Your task to perform on an android device: Show me popular games on the Play Store Image 0: 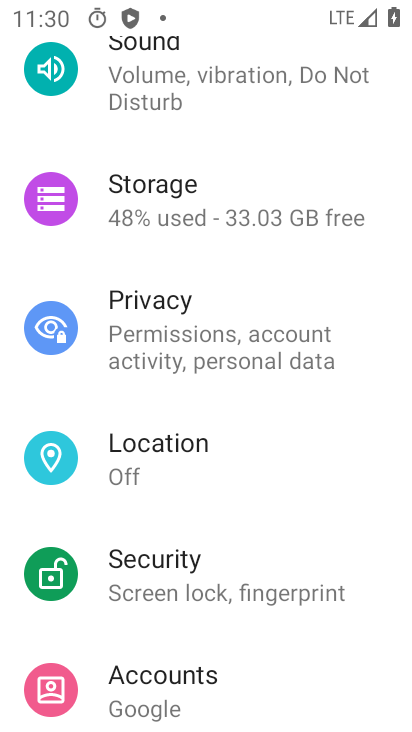
Step 0: press back button
Your task to perform on an android device: Show me popular games on the Play Store Image 1: 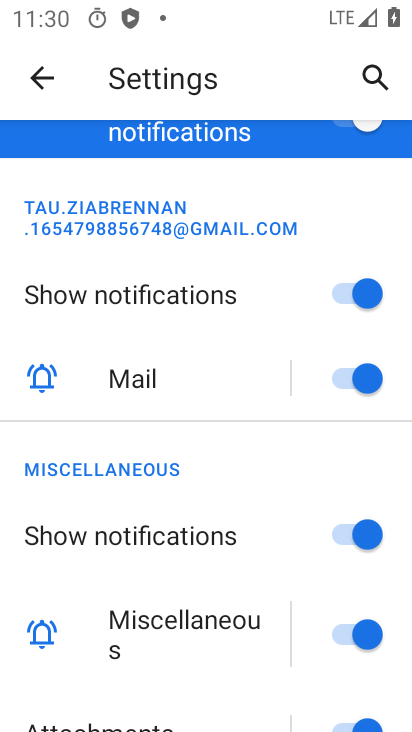
Step 1: press back button
Your task to perform on an android device: Show me popular games on the Play Store Image 2: 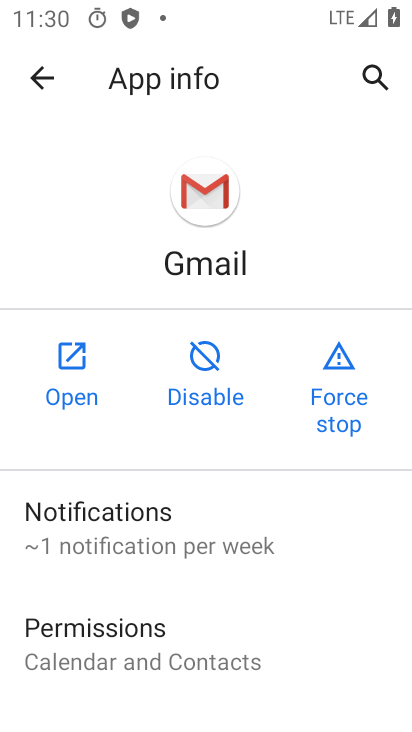
Step 2: press home button
Your task to perform on an android device: Show me popular games on the Play Store Image 3: 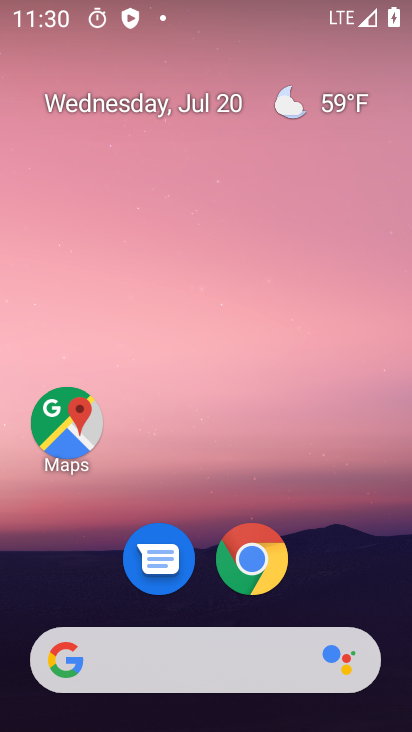
Step 3: drag from (98, 622) to (239, 8)
Your task to perform on an android device: Show me popular games on the Play Store Image 4: 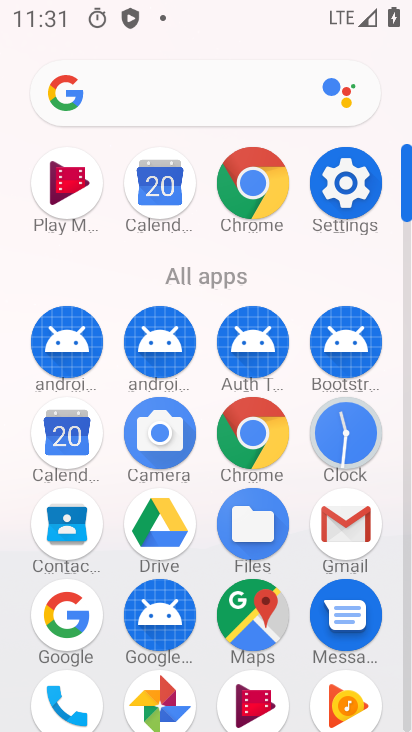
Step 4: drag from (134, 655) to (213, 191)
Your task to perform on an android device: Show me popular games on the Play Store Image 5: 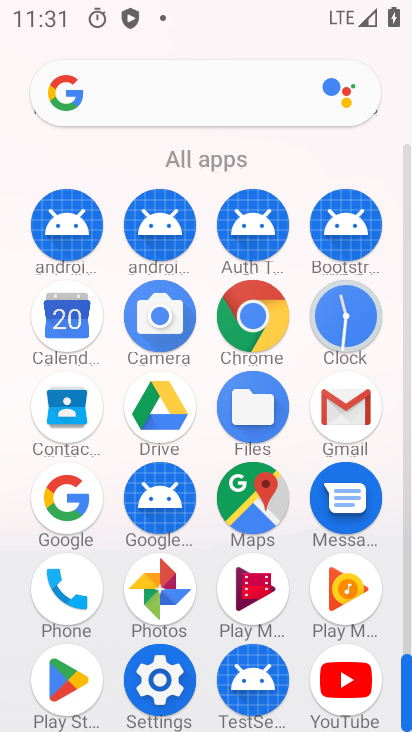
Step 5: click (68, 679)
Your task to perform on an android device: Show me popular games on the Play Store Image 6: 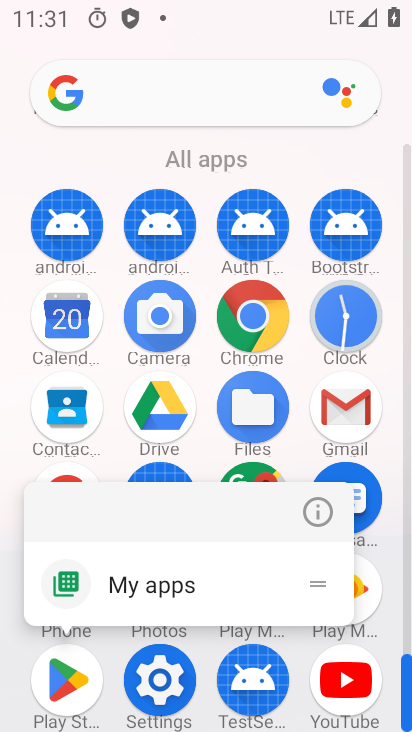
Step 6: click (72, 671)
Your task to perform on an android device: Show me popular games on the Play Store Image 7: 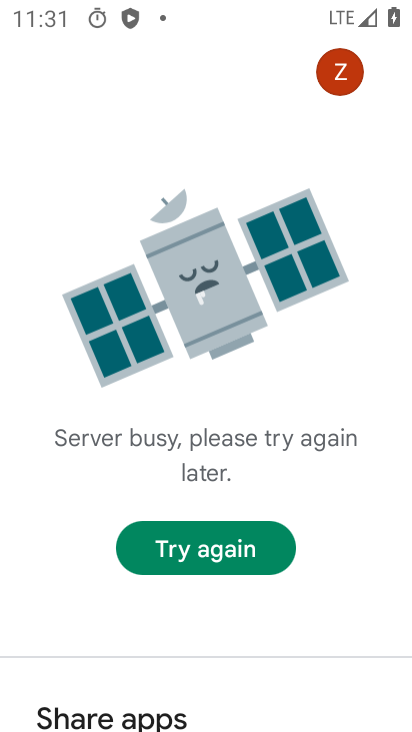
Step 7: task complete